Your task to perform on an android device: See recent photos Image 0: 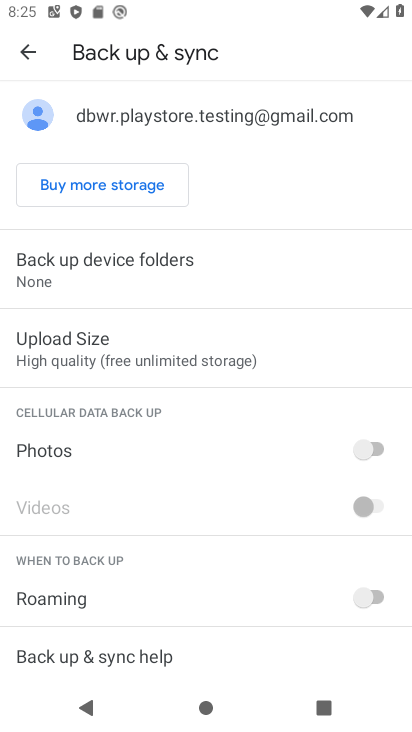
Step 0: press home button
Your task to perform on an android device: See recent photos Image 1: 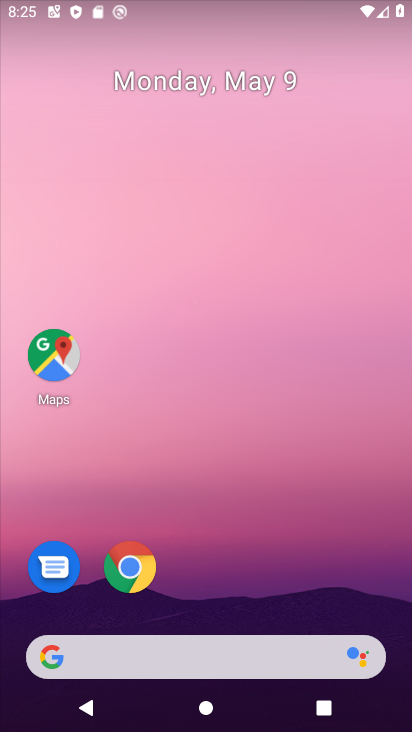
Step 1: drag from (369, 554) to (305, 191)
Your task to perform on an android device: See recent photos Image 2: 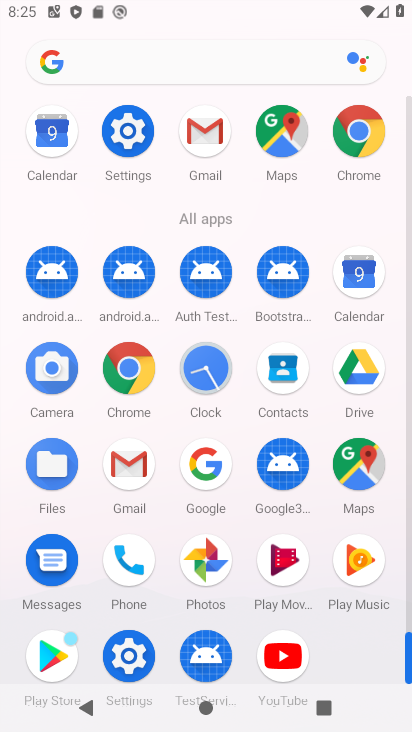
Step 2: click (200, 567)
Your task to perform on an android device: See recent photos Image 3: 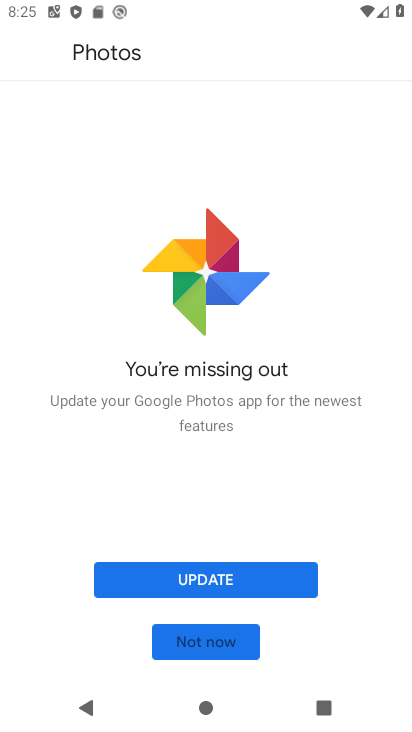
Step 3: click (211, 578)
Your task to perform on an android device: See recent photos Image 4: 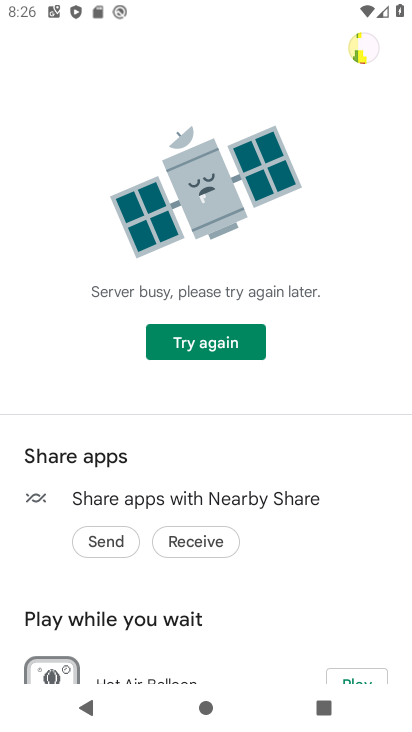
Step 4: task complete